Your task to perform on an android device: turn pop-ups off in chrome Image 0: 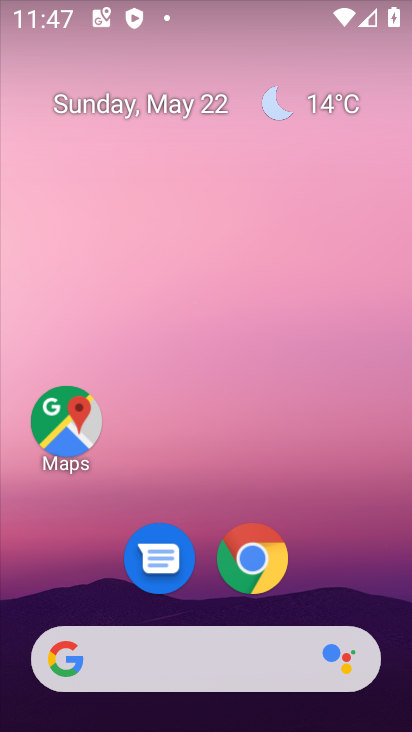
Step 0: click (258, 562)
Your task to perform on an android device: turn pop-ups off in chrome Image 1: 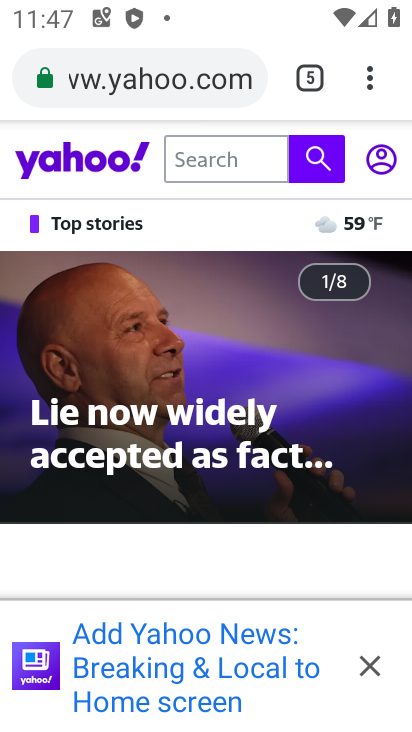
Step 1: click (370, 79)
Your task to perform on an android device: turn pop-ups off in chrome Image 2: 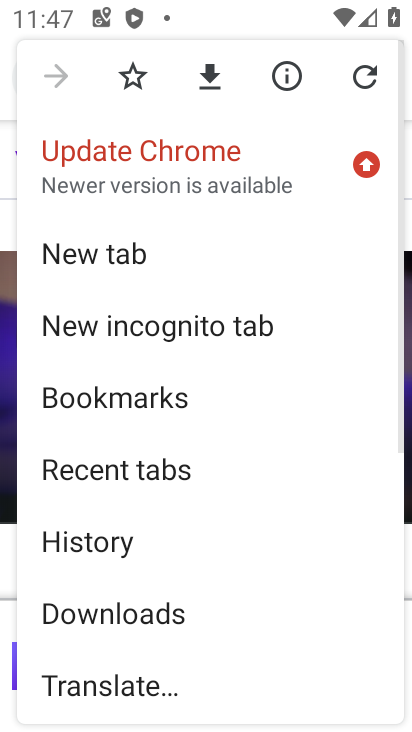
Step 2: drag from (206, 545) to (237, 116)
Your task to perform on an android device: turn pop-ups off in chrome Image 3: 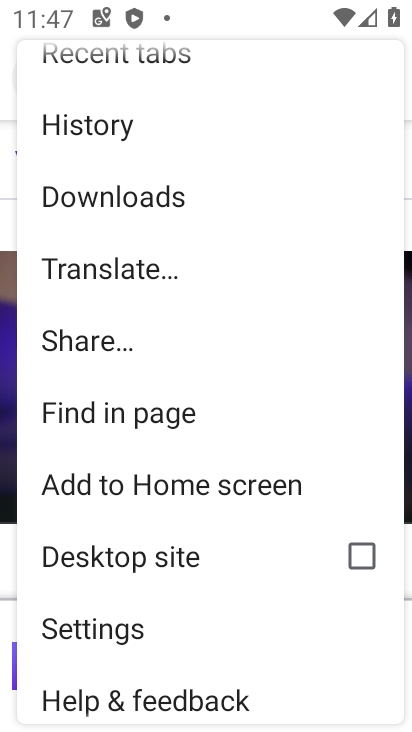
Step 3: drag from (181, 478) to (210, 153)
Your task to perform on an android device: turn pop-ups off in chrome Image 4: 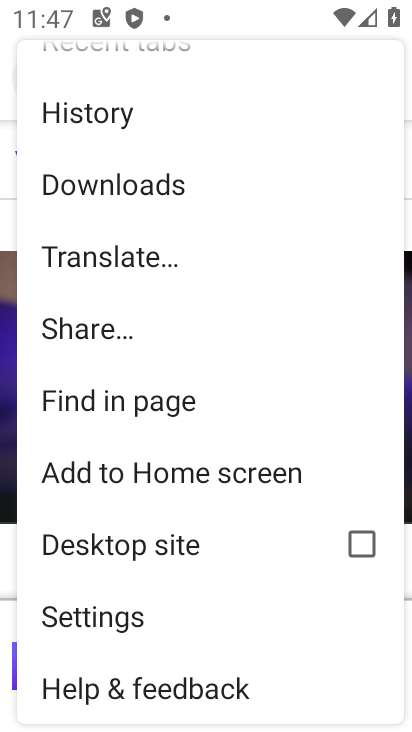
Step 4: click (92, 621)
Your task to perform on an android device: turn pop-ups off in chrome Image 5: 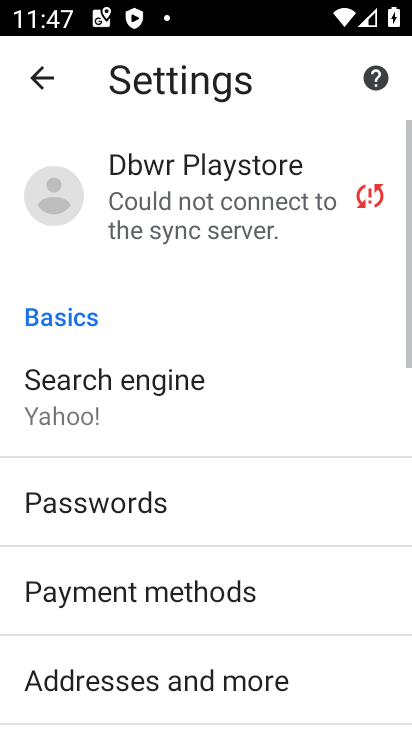
Step 5: drag from (186, 406) to (195, 136)
Your task to perform on an android device: turn pop-ups off in chrome Image 6: 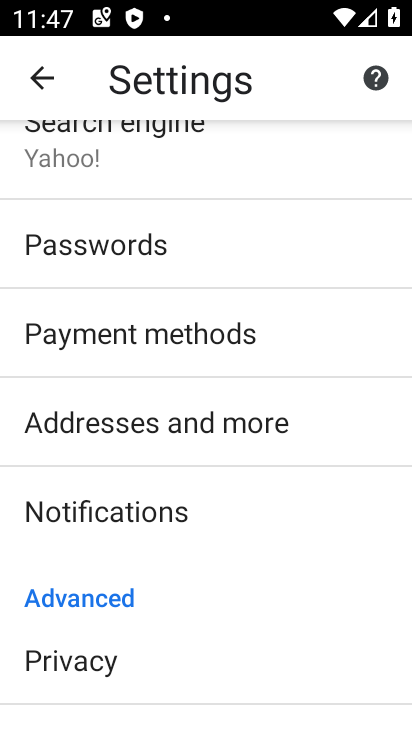
Step 6: drag from (200, 611) to (221, 164)
Your task to perform on an android device: turn pop-ups off in chrome Image 7: 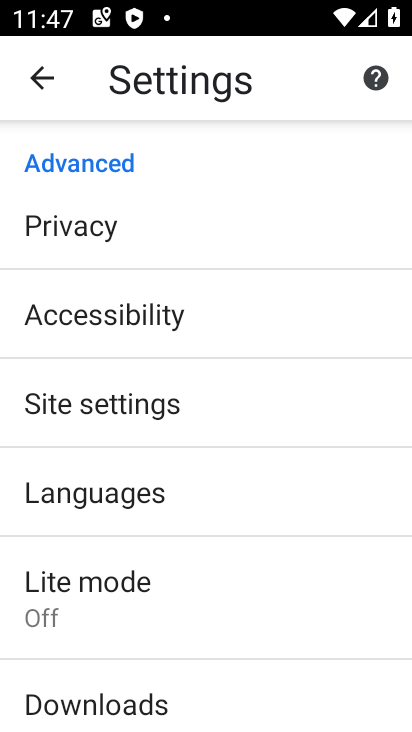
Step 7: click (81, 404)
Your task to perform on an android device: turn pop-ups off in chrome Image 8: 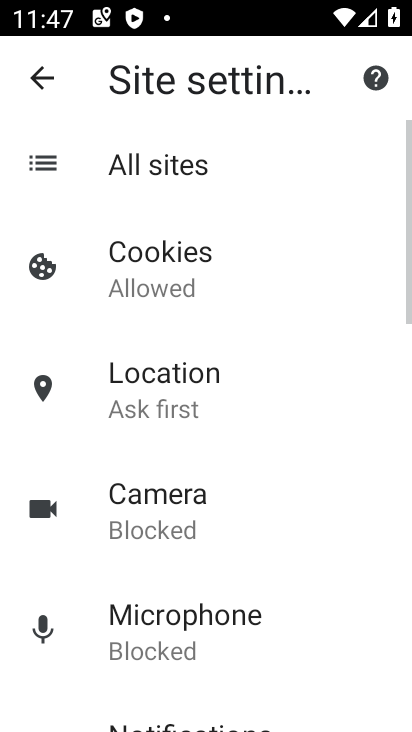
Step 8: drag from (236, 548) to (270, 174)
Your task to perform on an android device: turn pop-ups off in chrome Image 9: 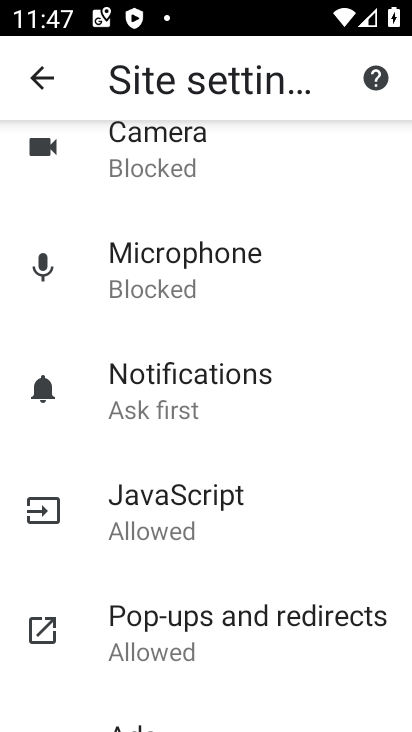
Step 9: drag from (240, 540) to (251, 250)
Your task to perform on an android device: turn pop-ups off in chrome Image 10: 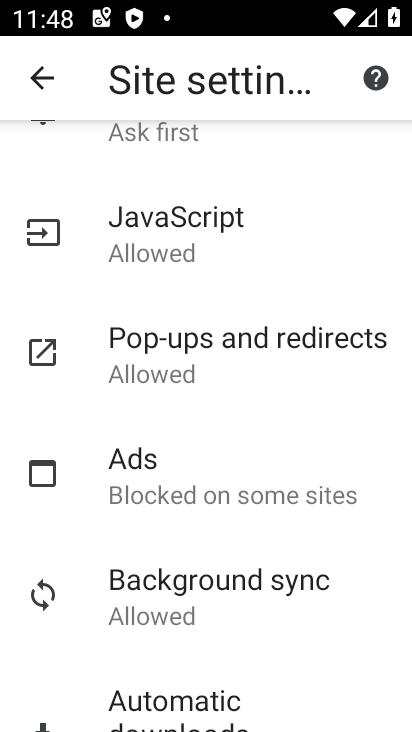
Step 10: click (185, 356)
Your task to perform on an android device: turn pop-ups off in chrome Image 11: 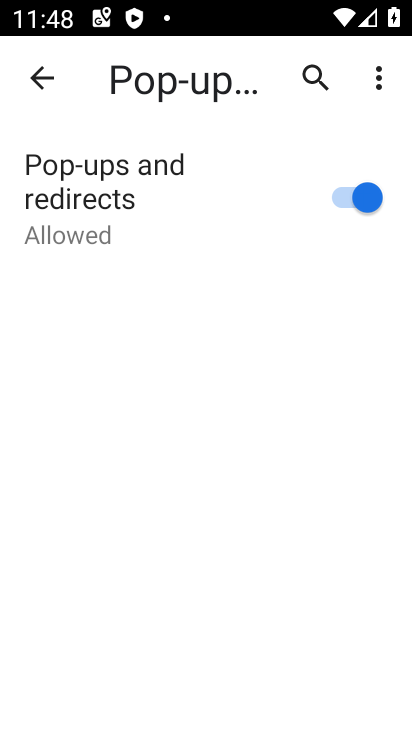
Step 11: click (364, 202)
Your task to perform on an android device: turn pop-ups off in chrome Image 12: 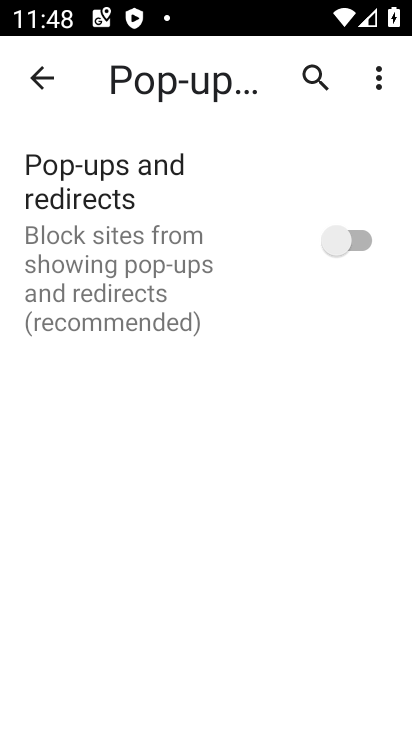
Step 12: task complete